Your task to perform on an android device: Show me popular games on the Play Store Image 0: 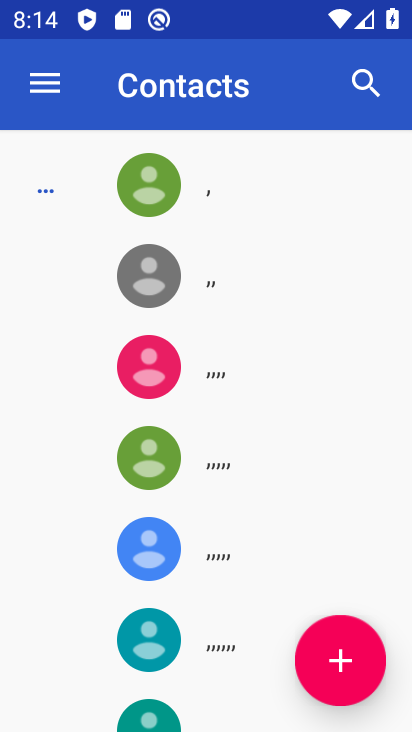
Step 0: press home button
Your task to perform on an android device: Show me popular games on the Play Store Image 1: 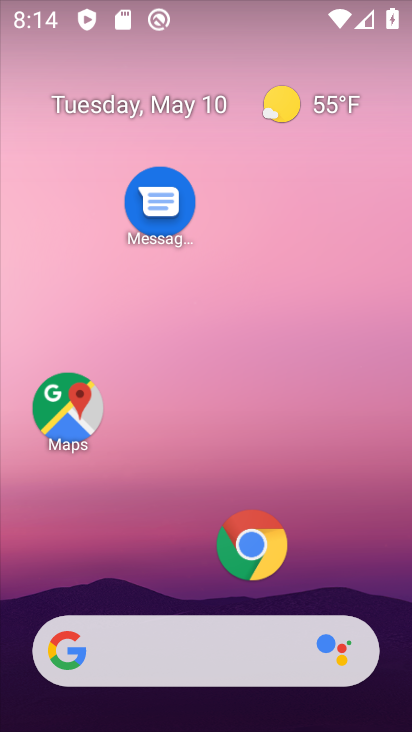
Step 1: drag from (184, 576) to (269, 119)
Your task to perform on an android device: Show me popular games on the Play Store Image 2: 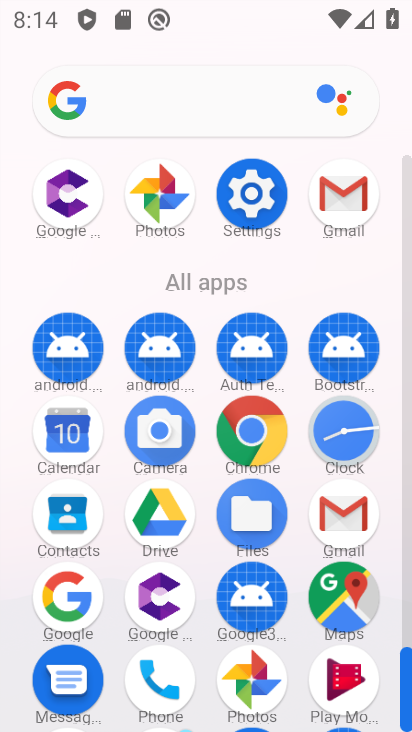
Step 2: drag from (199, 620) to (259, 328)
Your task to perform on an android device: Show me popular games on the Play Store Image 3: 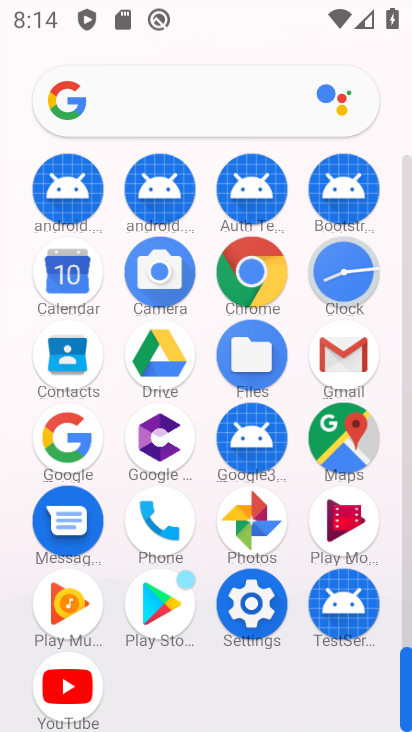
Step 3: click (154, 599)
Your task to perform on an android device: Show me popular games on the Play Store Image 4: 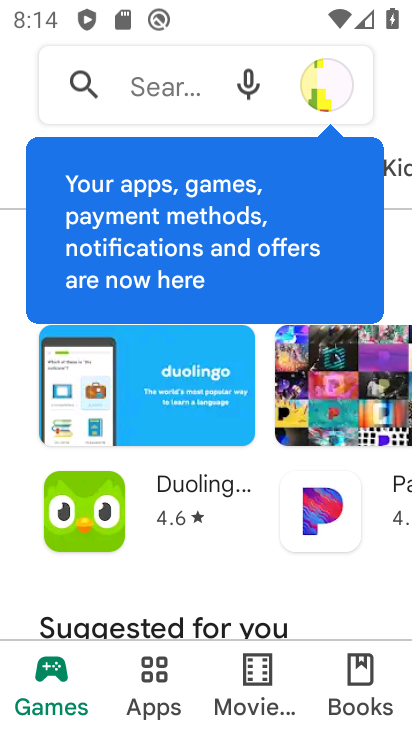
Step 4: click (157, 249)
Your task to perform on an android device: Show me popular games on the Play Store Image 5: 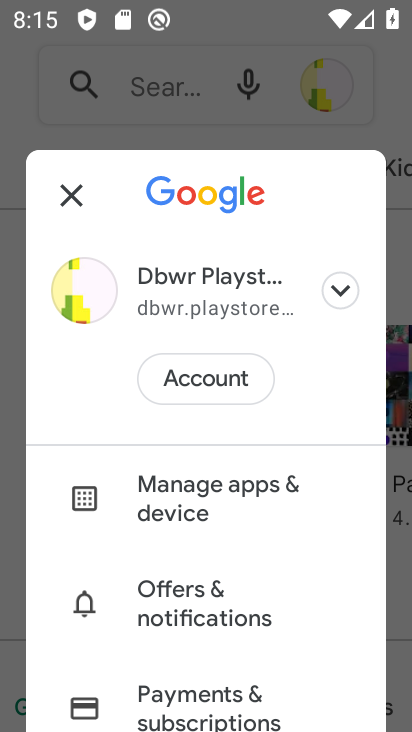
Step 5: click (50, 191)
Your task to perform on an android device: Show me popular games on the Play Store Image 6: 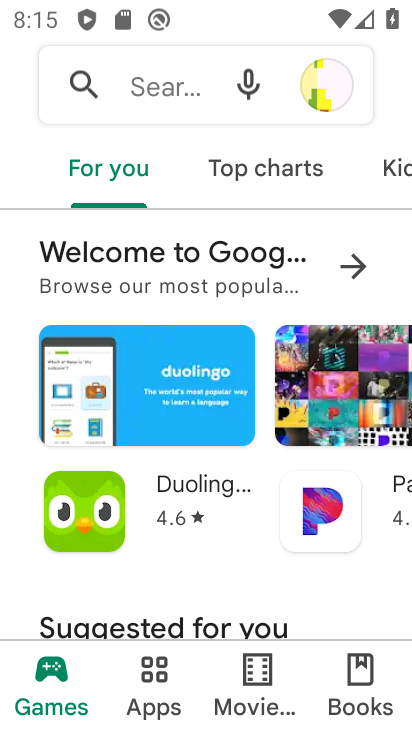
Step 6: click (262, 176)
Your task to perform on an android device: Show me popular games on the Play Store Image 7: 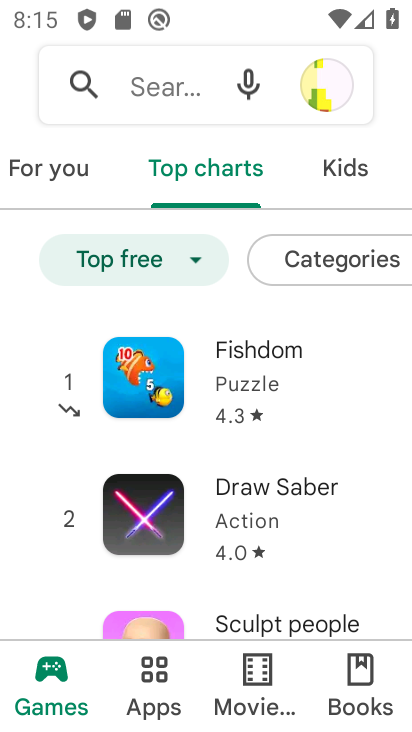
Step 7: drag from (257, 521) to (267, 348)
Your task to perform on an android device: Show me popular games on the Play Store Image 8: 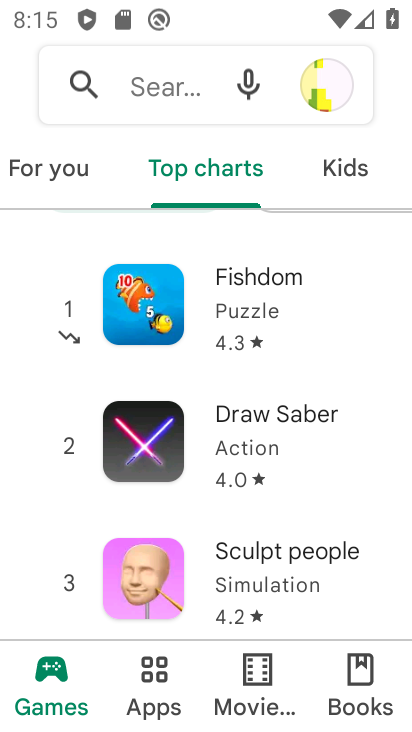
Step 8: click (176, 174)
Your task to perform on an android device: Show me popular games on the Play Store Image 9: 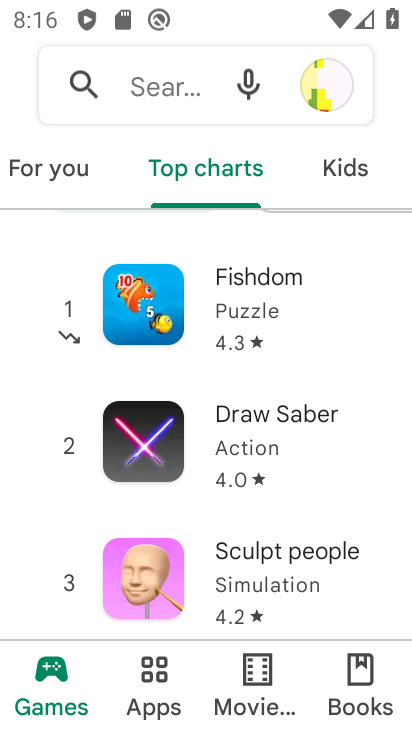
Step 9: drag from (213, 285) to (213, 554)
Your task to perform on an android device: Show me popular games on the Play Store Image 10: 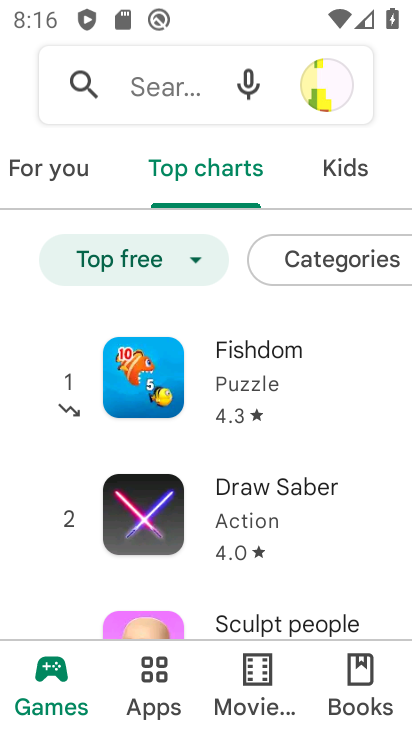
Step 10: click (186, 268)
Your task to perform on an android device: Show me popular games on the Play Store Image 11: 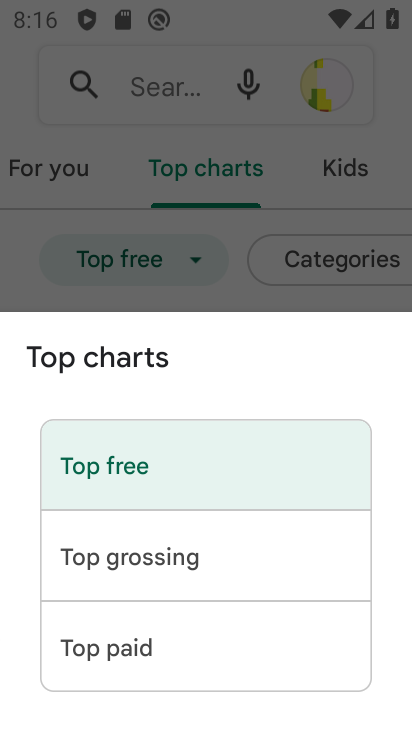
Step 11: drag from (170, 659) to (189, 429)
Your task to perform on an android device: Show me popular games on the Play Store Image 12: 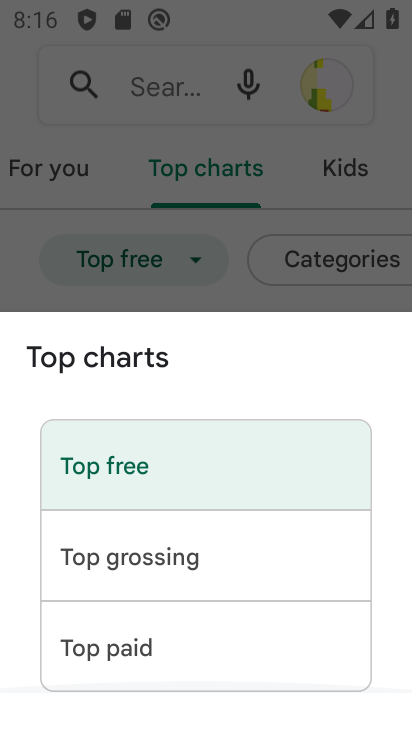
Step 12: click (174, 271)
Your task to perform on an android device: Show me popular games on the Play Store Image 13: 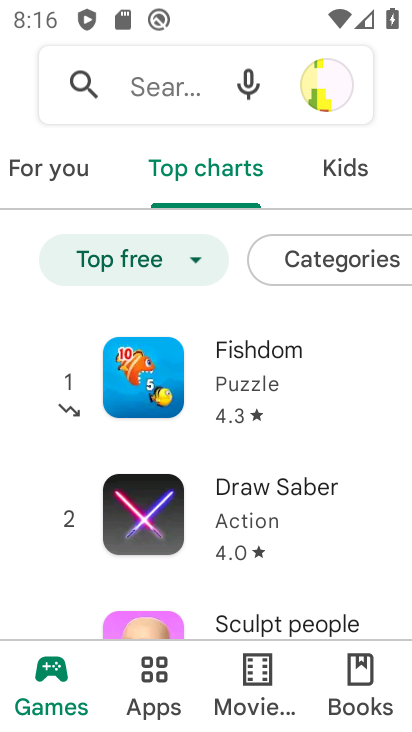
Step 13: task complete